Your task to perform on an android device: open app "Clock" (install if not already installed) Image 0: 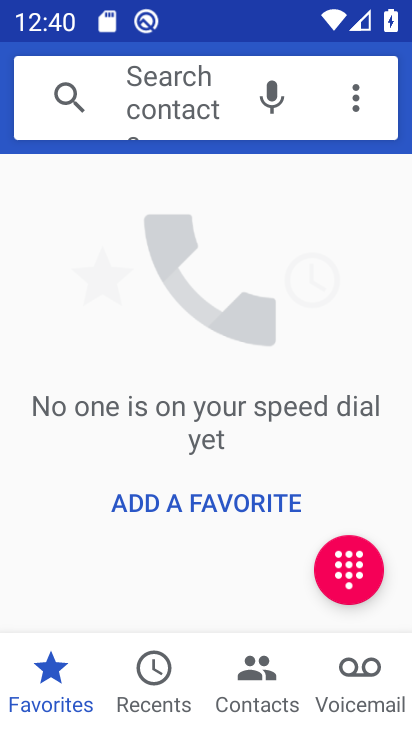
Step 0: press home button
Your task to perform on an android device: open app "Clock" (install if not already installed) Image 1: 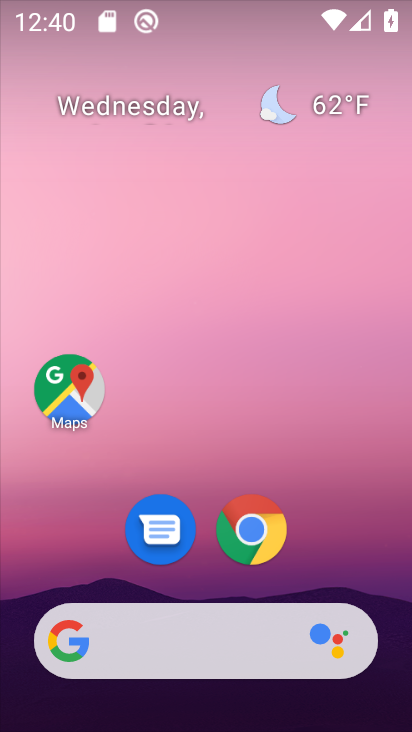
Step 1: drag from (181, 590) to (176, 143)
Your task to perform on an android device: open app "Clock" (install if not already installed) Image 2: 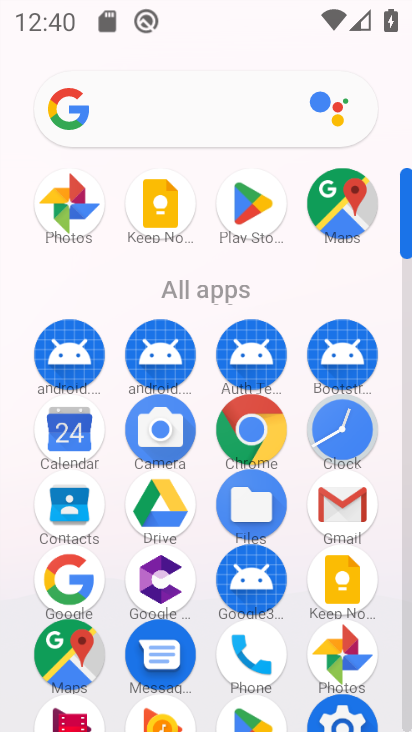
Step 2: click (260, 186)
Your task to perform on an android device: open app "Clock" (install if not already installed) Image 3: 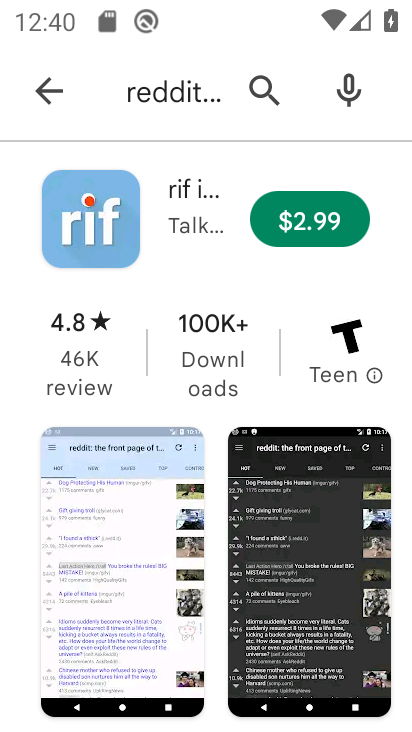
Step 3: click (35, 72)
Your task to perform on an android device: open app "Clock" (install if not already installed) Image 4: 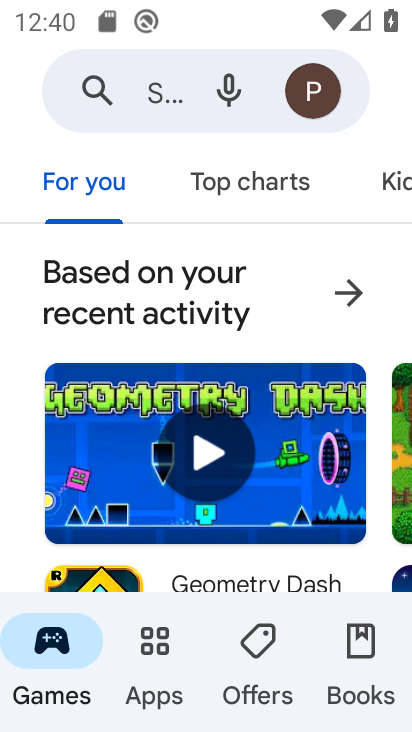
Step 4: click (180, 77)
Your task to perform on an android device: open app "Clock" (install if not already installed) Image 5: 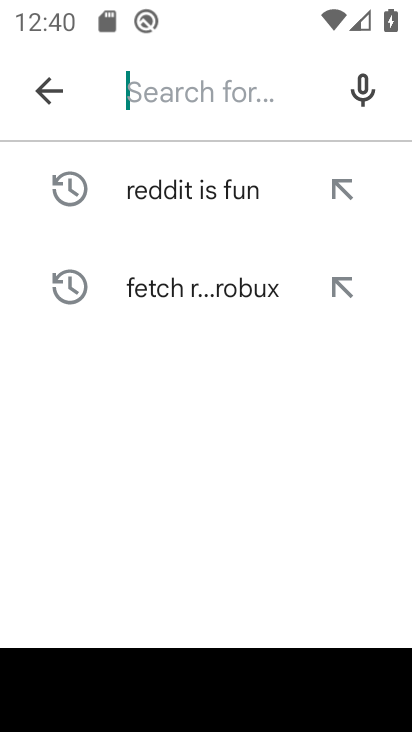
Step 5: type "Clock "
Your task to perform on an android device: open app "Clock" (install if not already installed) Image 6: 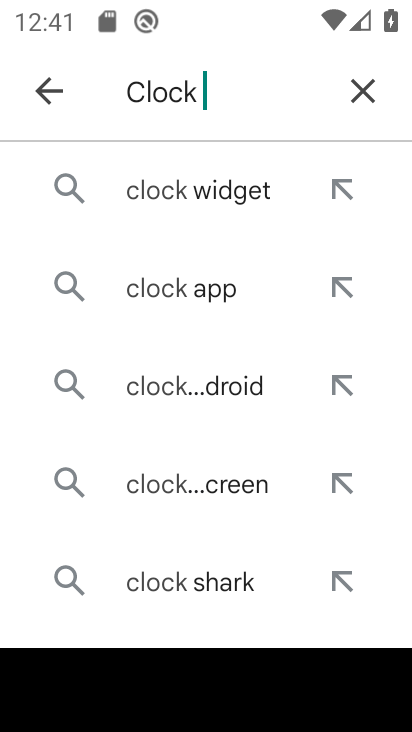
Step 6: click (229, 285)
Your task to perform on an android device: open app "Clock" (install if not already installed) Image 7: 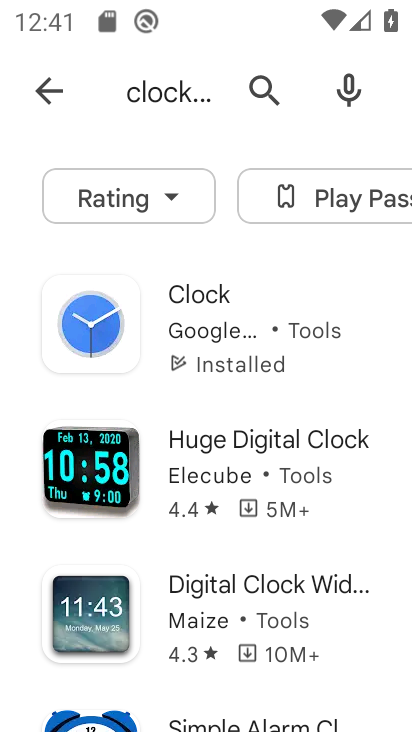
Step 7: click (200, 328)
Your task to perform on an android device: open app "Clock" (install if not already installed) Image 8: 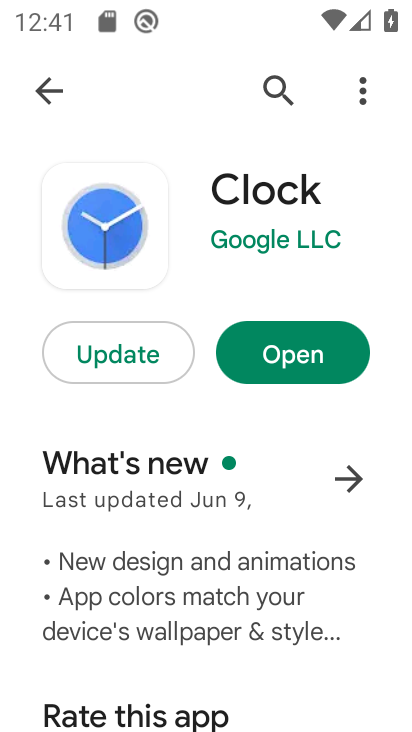
Step 8: click (240, 351)
Your task to perform on an android device: open app "Clock" (install if not already installed) Image 9: 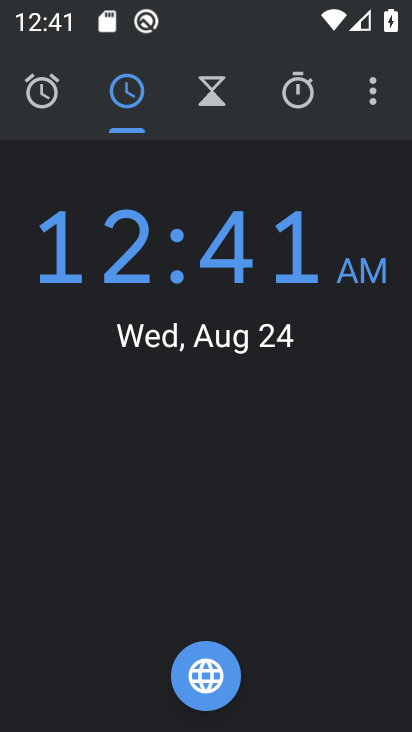
Step 9: task complete